Your task to perform on an android device: Open Maps and search for coffee Image 0: 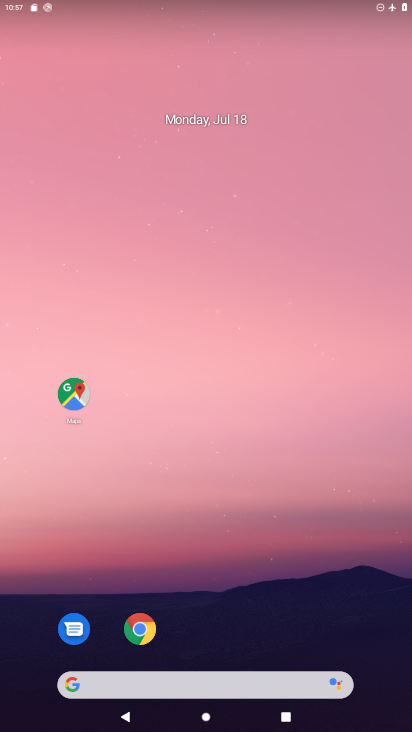
Step 0: drag from (328, 541) to (269, 55)
Your task to perform on an android device: Open Maps and search for coffee Image 1: 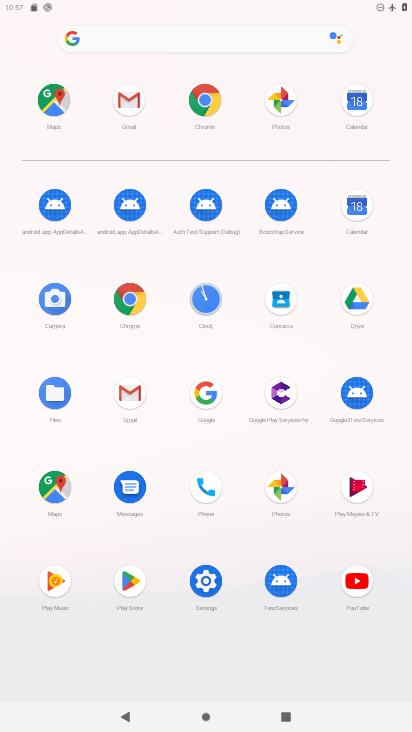
Step 1: click (49, 484)
Your task to perform on an android device: Open Maps and search for coffee Image 2: 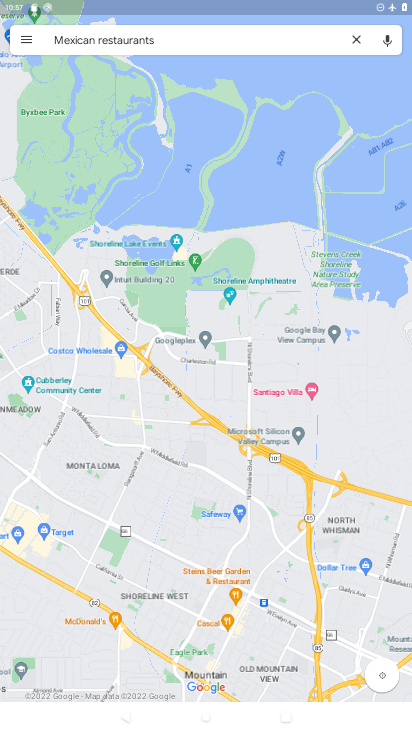
Step 2: click (356, 41)
Your task to perform on an android device: Open Maps and search for coffee Image 3: 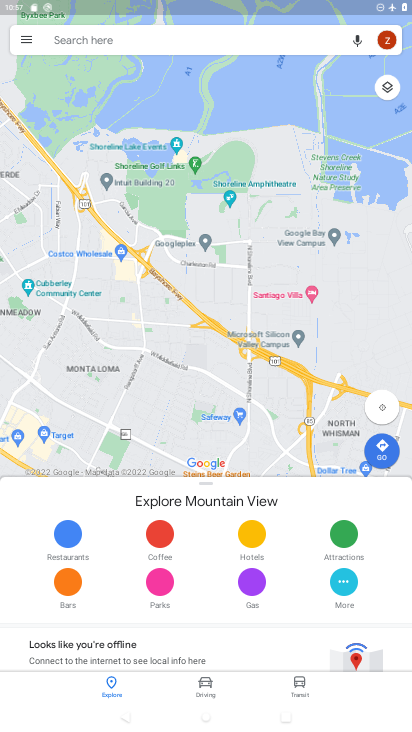
Step 3: click (235, 39)
Your task to perform on an android device: Open Maps and search for coffee Image 4: 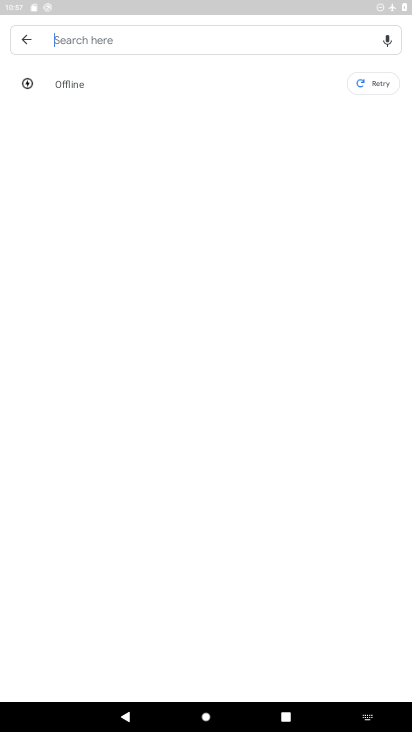
Step 4: type "coffee"
Your task to perform on an android device: Open Maps and search for coffee Image 5: 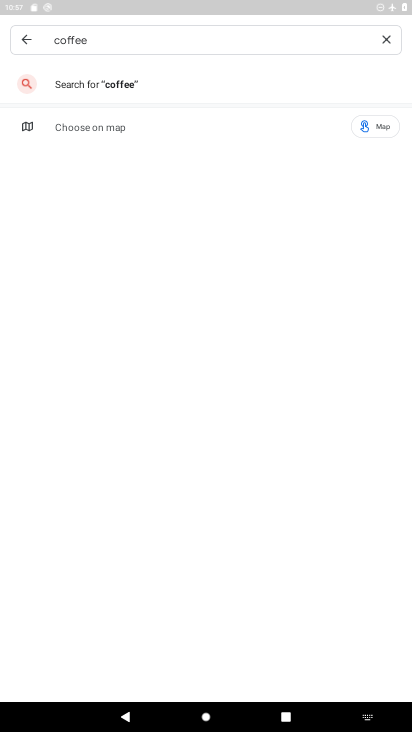
Step 5: press enter
Your task to perform on an android device: Open Maps and search for coffee Image 6: 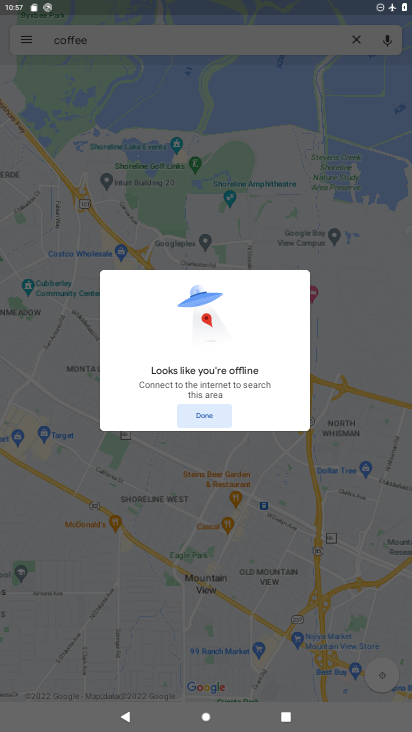
Step 6: task complete